Your task to perform on an android device: Open Google Image 0: 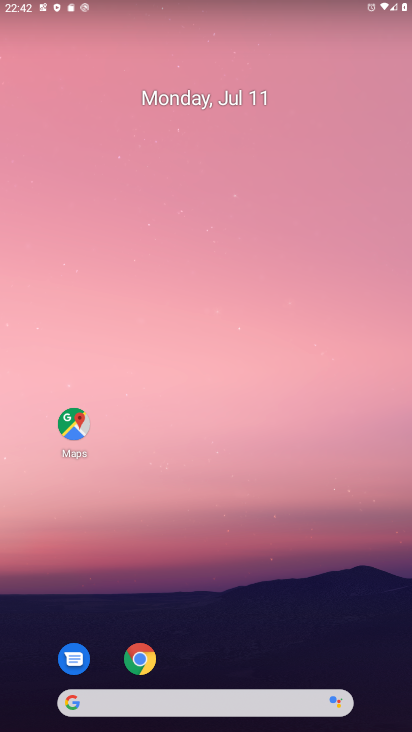
Step 0: drag from (212, 627) to (203, 146)
Your task to perform on an android device: Open Google Image 1: 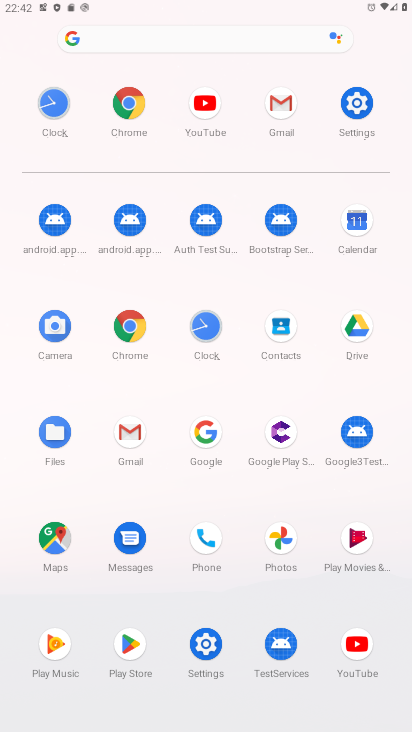
Step 1: click (200, 435)
Your task to perform on an android device: Open Google Image 2: 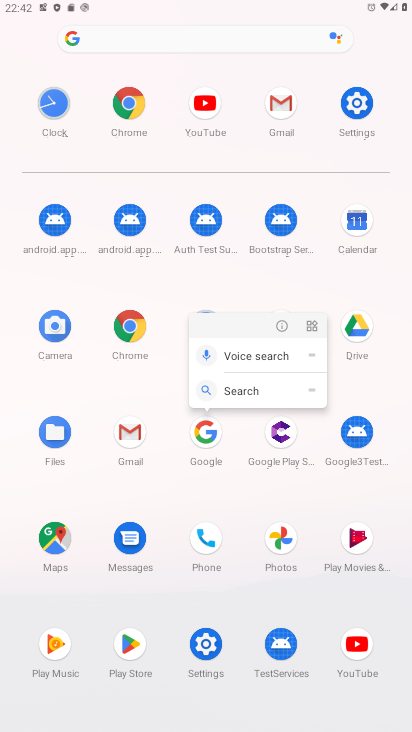
Step 2: click (279, 328)
Your task to perform on an android device: Open Google Image 3: 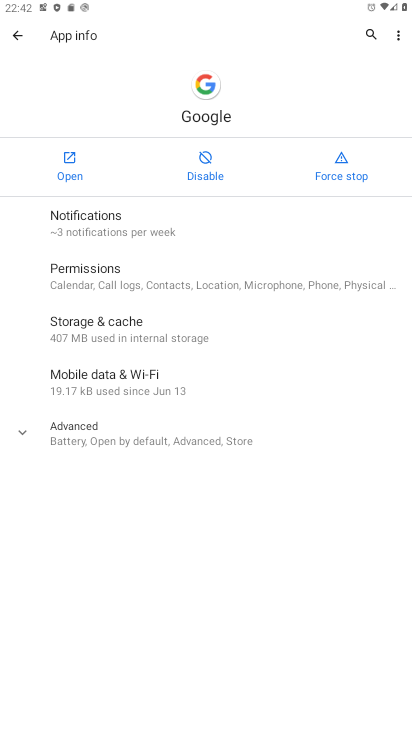
Step 3: click (65, 166)
Your task to perform on an android device: Open Google Image 4: 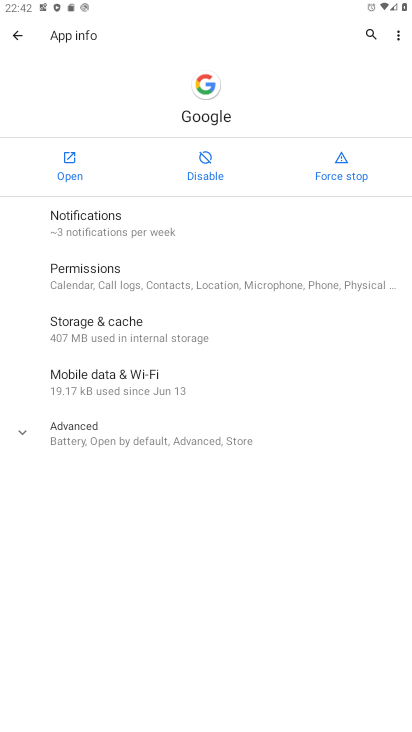
Step 4: click (68, 166)
Your task to perform on an android device: Open Google Image 5: 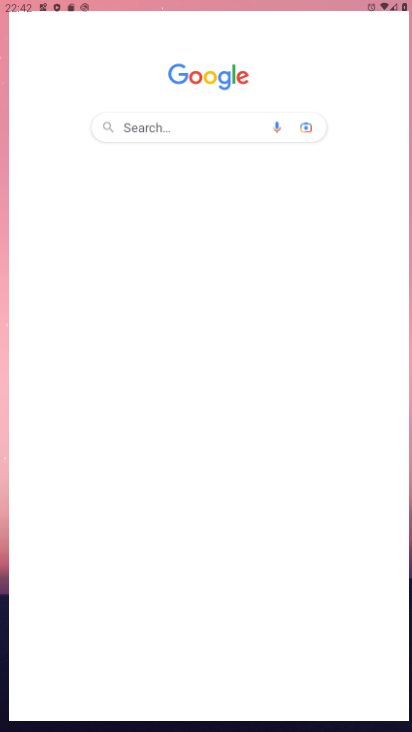
Step 5: task complete